Your task to perform on an android device: change the clock display to show seconds Image 0: 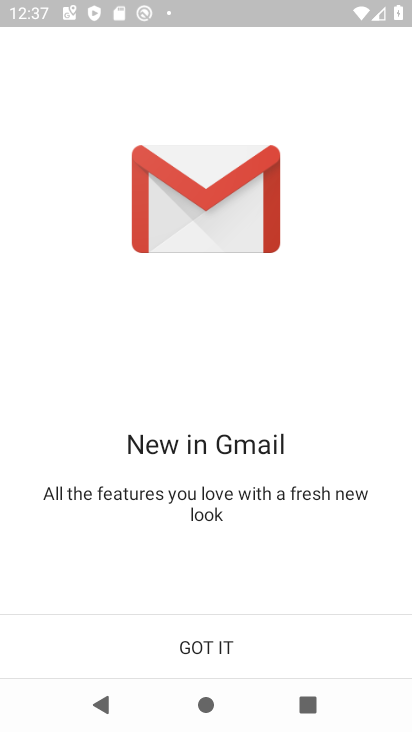
Step 0: click (280, 635)
Your task to perform on an android device: change the clock display to show seconds Image 1: 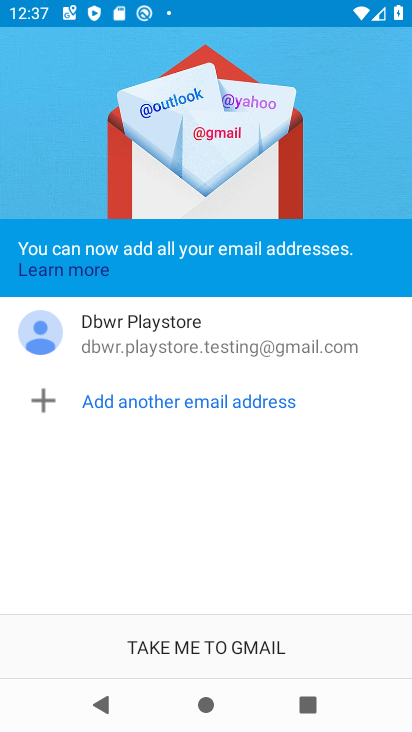
Step 1: click (206, 649)
Your task to perform on an android device: change the clock display to show seconds Image 2: 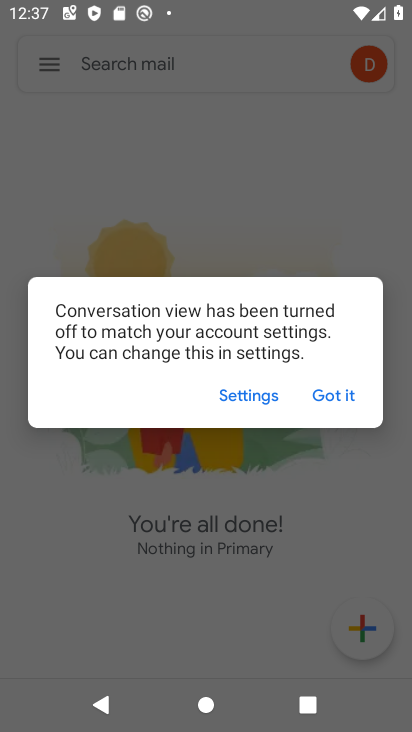
Step 2: click (345, 396)
Your task to perform on an android device: change the clock display to show seconds Image 3: 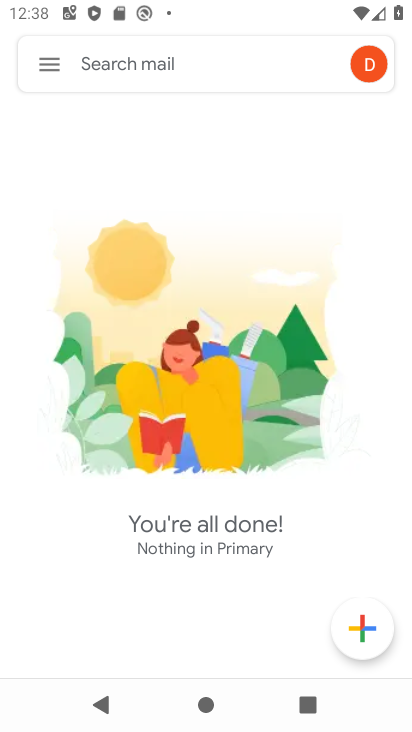
Step 3: press home button
Your task to perform on an android device: change the clock display to show seconds Image 4: 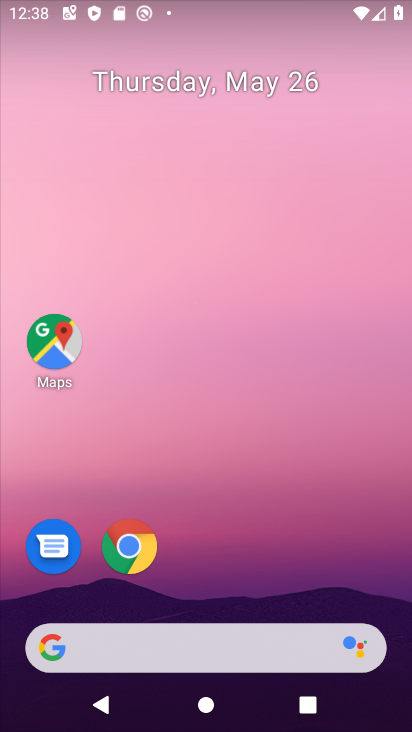
Step 4: drag from (295, 571) to (238, 235)
Your task to perform on an android device: change the clock display to show seconds Image 5: 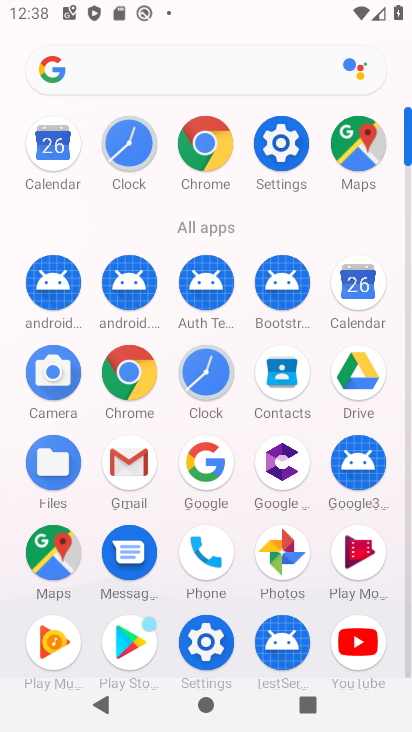
Step 5: click (221, 374)
Your task to perform on an android device: change the clock display to show seconds Image 6: 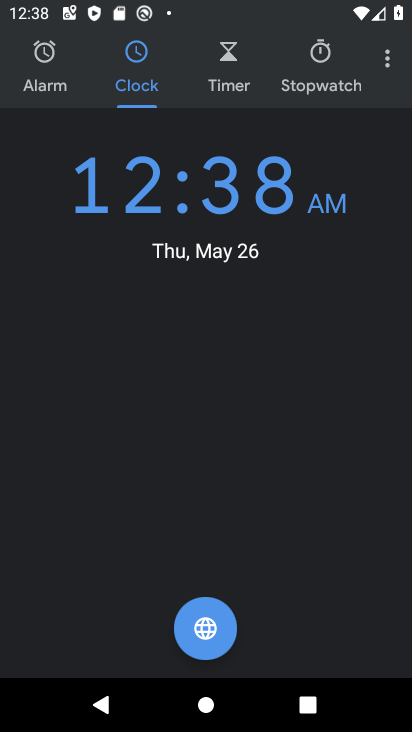
Step 6: click (385, 71)
Your task to perform on an android device: change the clock display to show seconds Image 7: 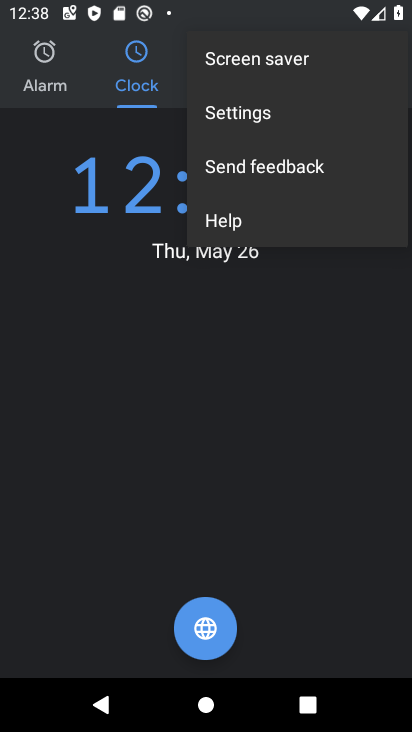
Step 7: click (287, 120)
Your task to perform on an android device: change the clock display to show seconds Image 8: 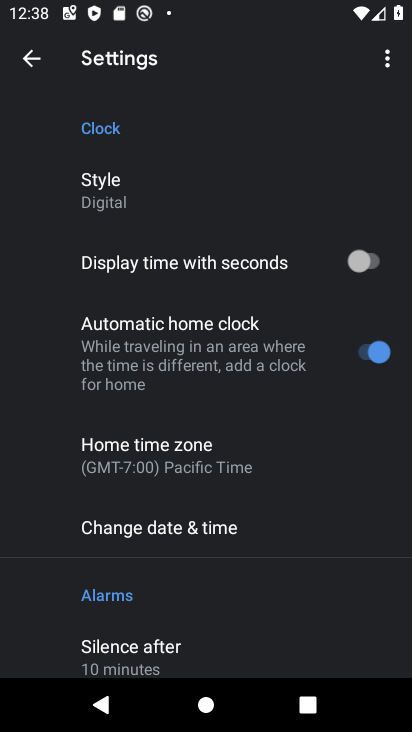
Step 8: click (272, 267)
Your task to perform on an android device: change the clock display to show seconds Image 9: 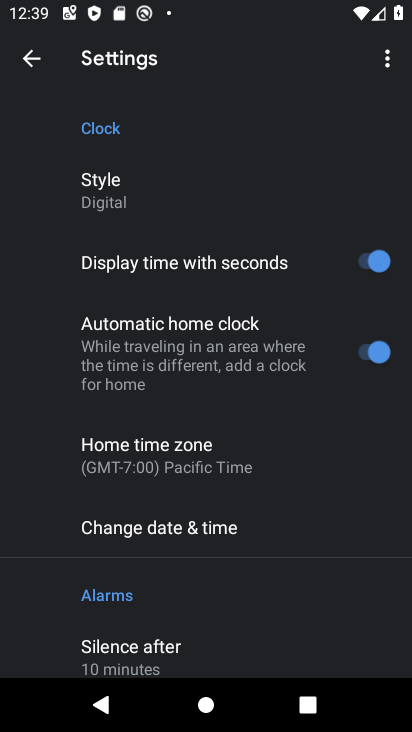
Step 9: task complete